Your task to perform on an android device: turn on airplane mode Image 0: 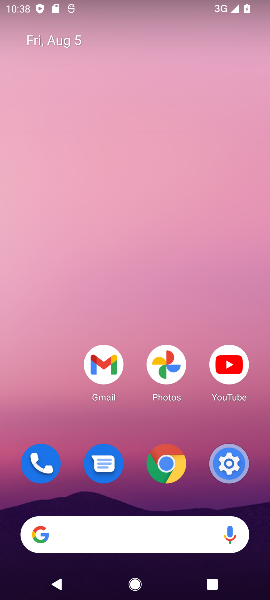
Step 0: drag from (145, 508) to (145, 248)
Your task to perform on an android device: turn on airplane mode Image 1: 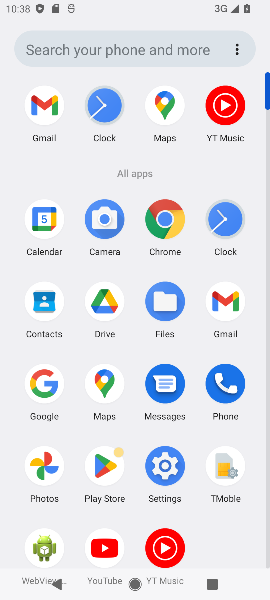
Step 1: click (156, 447)
Your task to perform on an android device: turn on airplane mode Image 2: 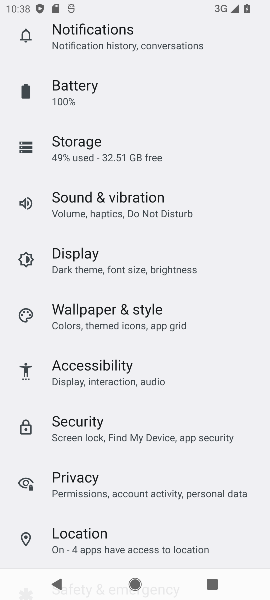
Step 2: drag from (93, 93) to (137, 522)
Your task to perform on an android device: turn on airplane mode Image 3: 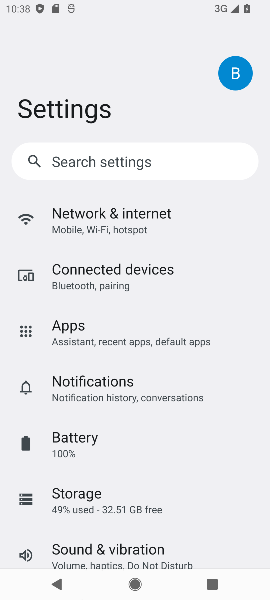
Step 3: click (125, 229)
Your task to perform on an android device: turn on airplane mode Image 4: 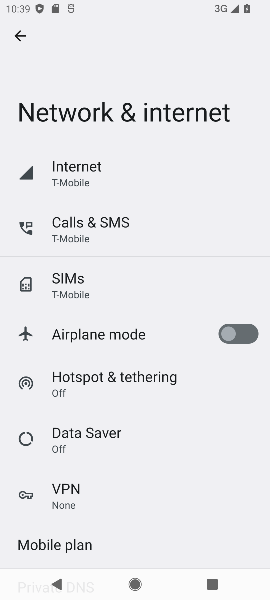
Step 4: click (248, 327)
Your task to perform on an android device: turn on airplane mode Image 5: 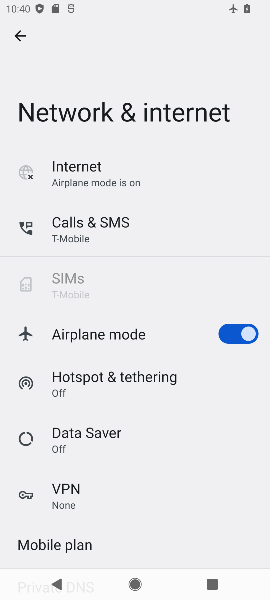
Step 5: task complete